Your task to perform on an android device: turn on sleep mode Image 0: 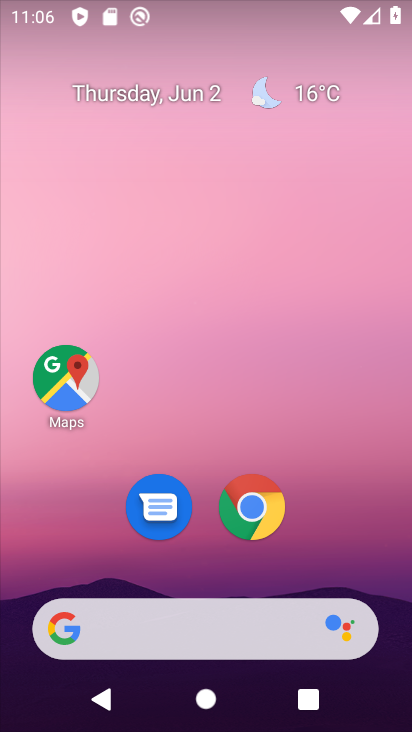
Step 0: drag from (356, 527) to (338, 157)
Your task to perform on an android device: turn on sleep mode Image 1: 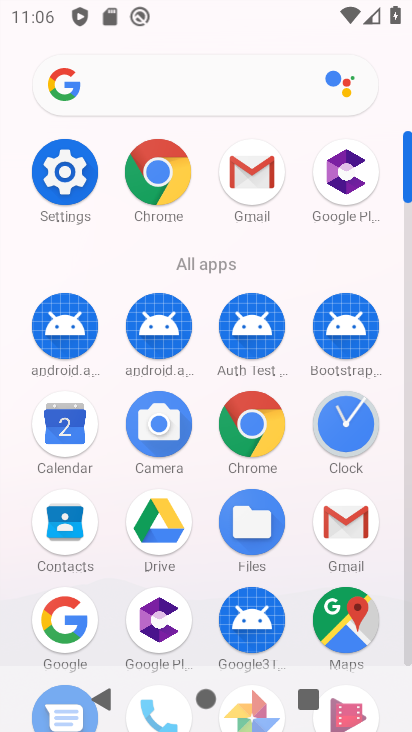
Step 1: click (77, 187)
Your task to perform on an android device: turn on sleep mode Image 2: 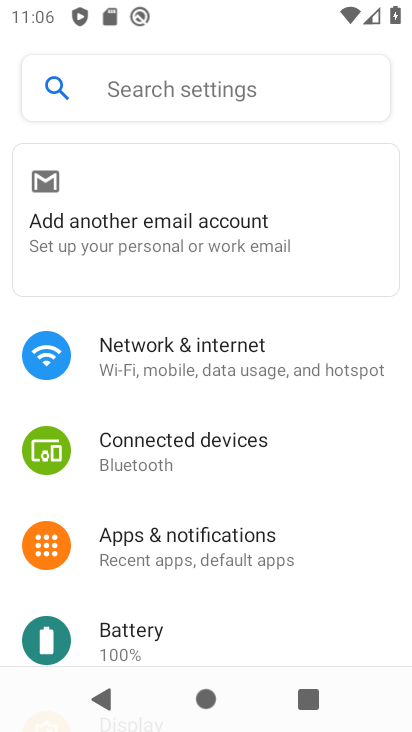
Step 2: click (278, 93)
Your task to perform on an android device: turn on sleep mode Image 3: 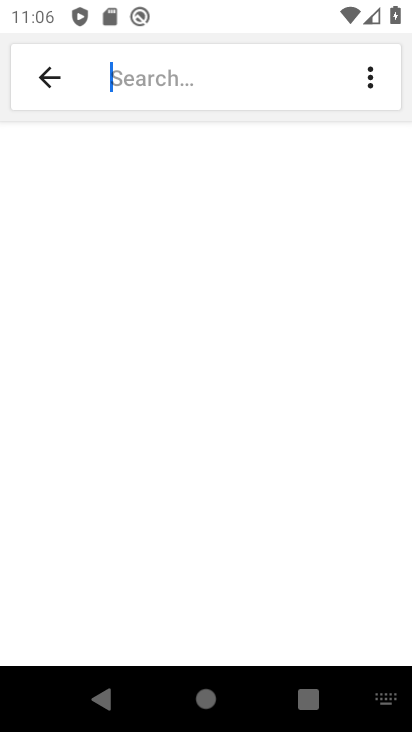
Step 3: type "sleep mode"
Your task to perform on an android device: turn on sleep mode Image 4: 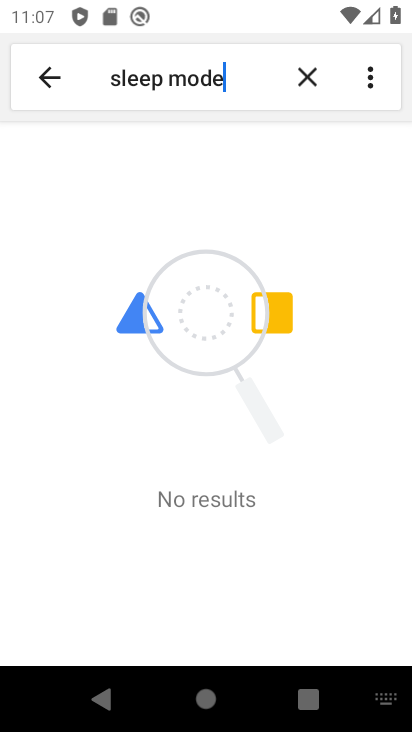
Step 4: task complete